Your task to perform on an android device: Do I have any events this weekend? Image 0: 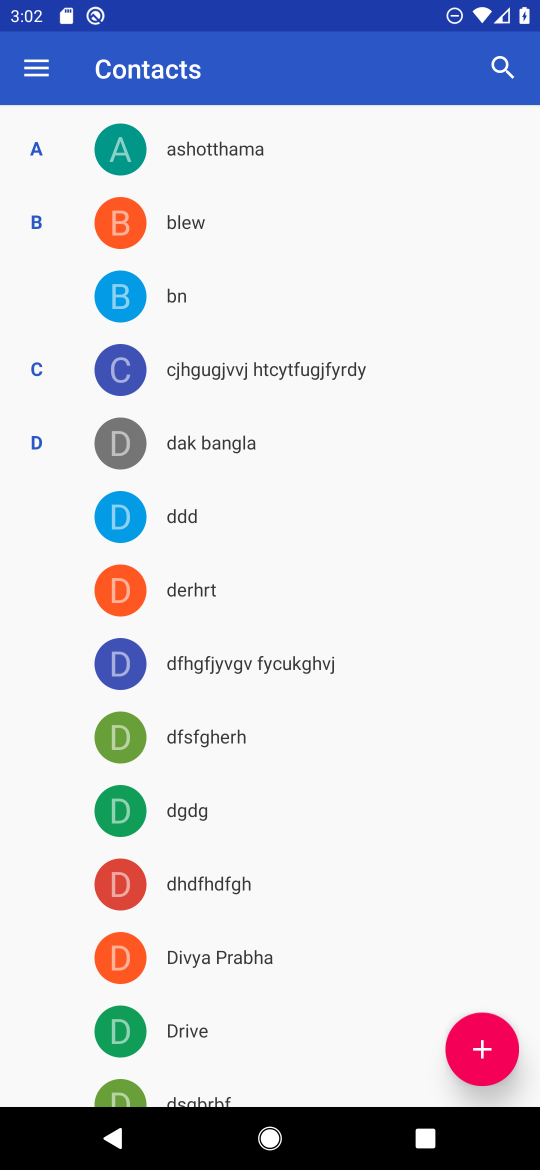
Step 0: press home button
Your task to perform on an android device: Do I have any events this weekend? Image 1: 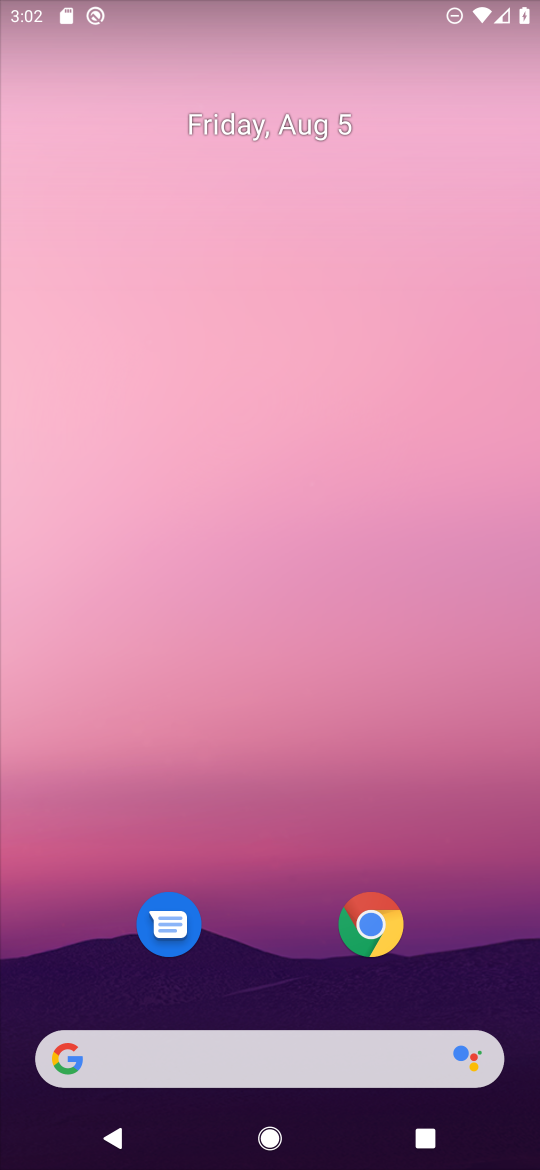
Step 1: drag from (288, 573) to (315, 97)
Your task to perform on an android device: Do I have any events this weekend? Image 2: 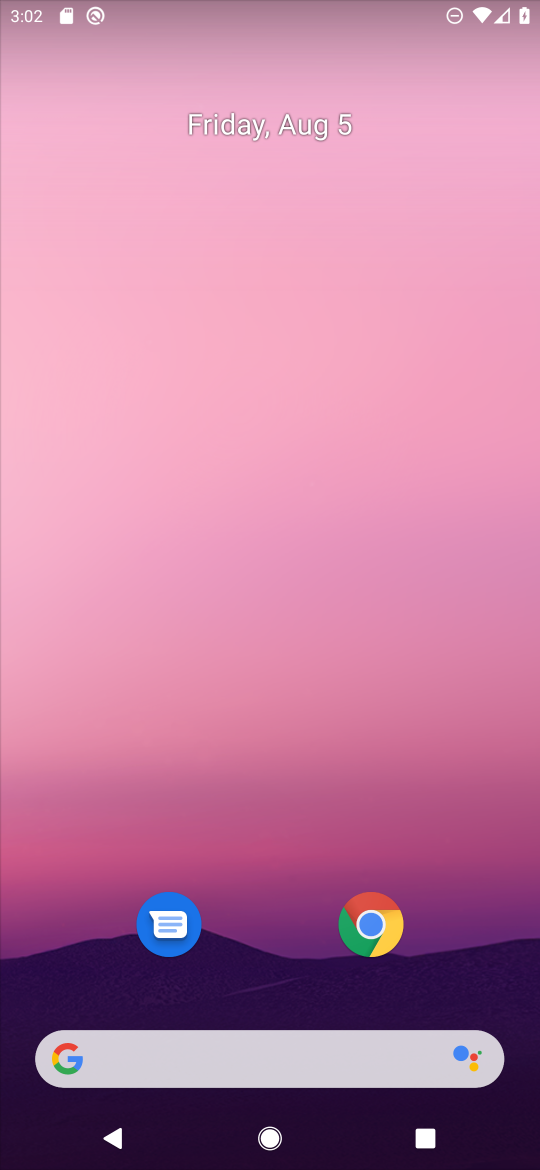
Step 2: drag from (322, 648) to (366, 135)
Your task to perform on an android device: Do I have any events this weekend? Image 3: 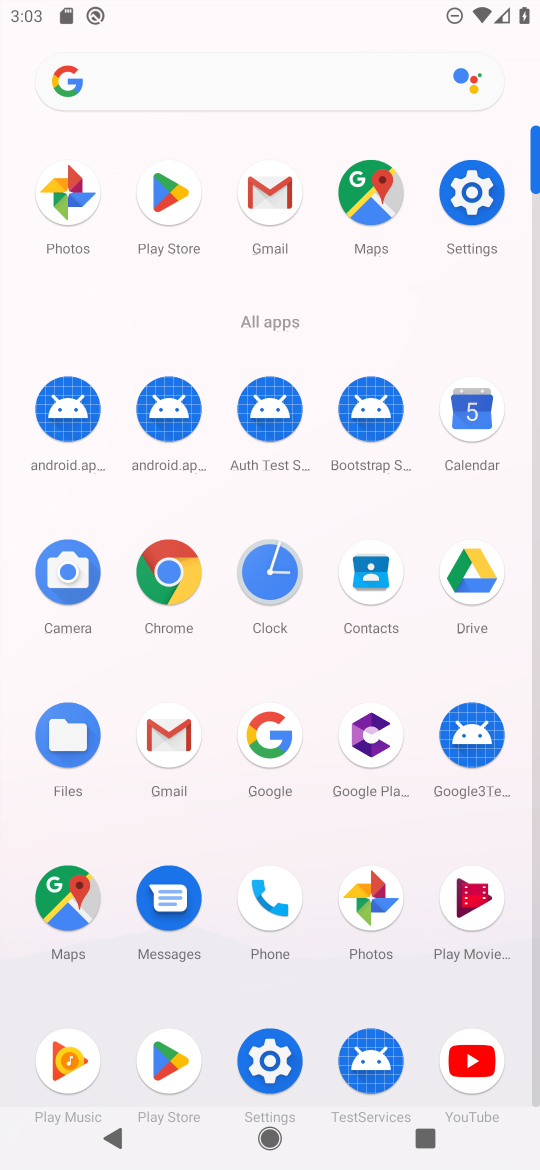
Step 3: click (483, 401)
Your task to perform on an android device: Do I have any events this weekend? Image 4: 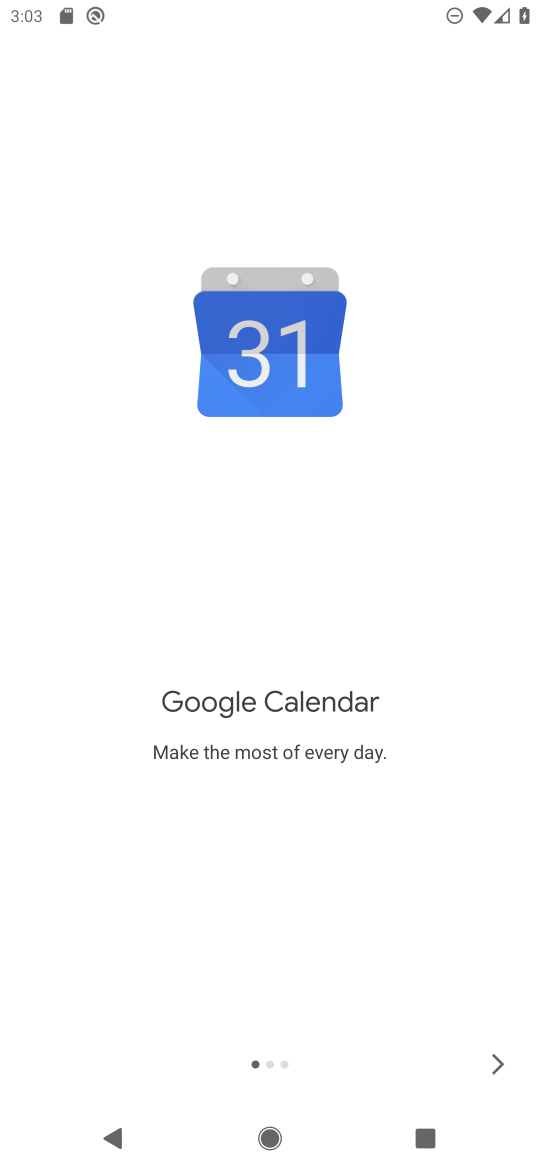
Step 4: click (503, 1061)
Your task to perform on an android device: Do I have any events this weekend? Image 5: 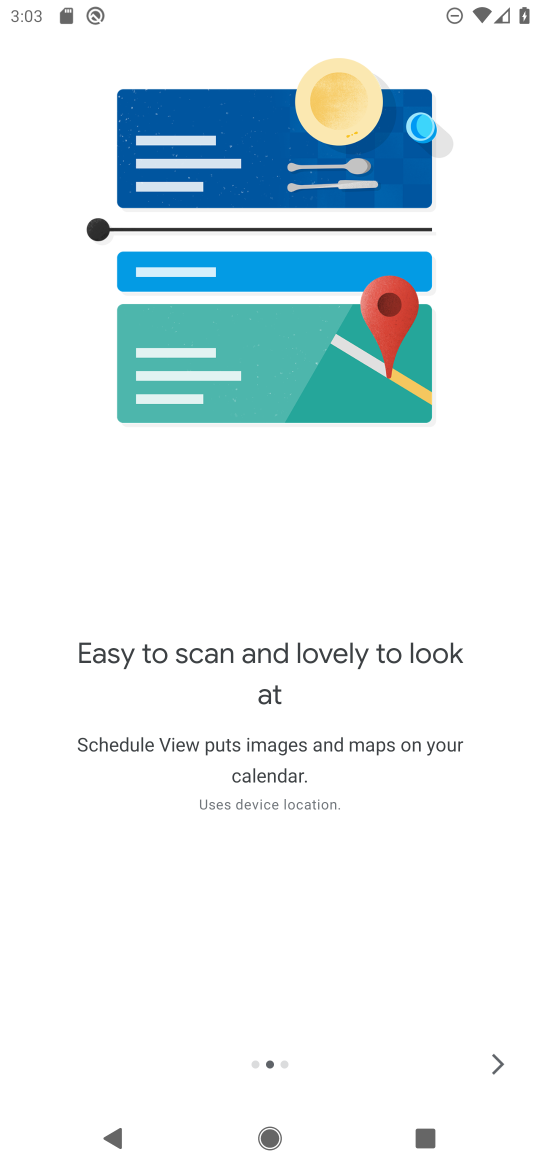
Step 5: click (503, 1061)
Your task to perform on an android device: Do I have any events this weekend? Image 6: 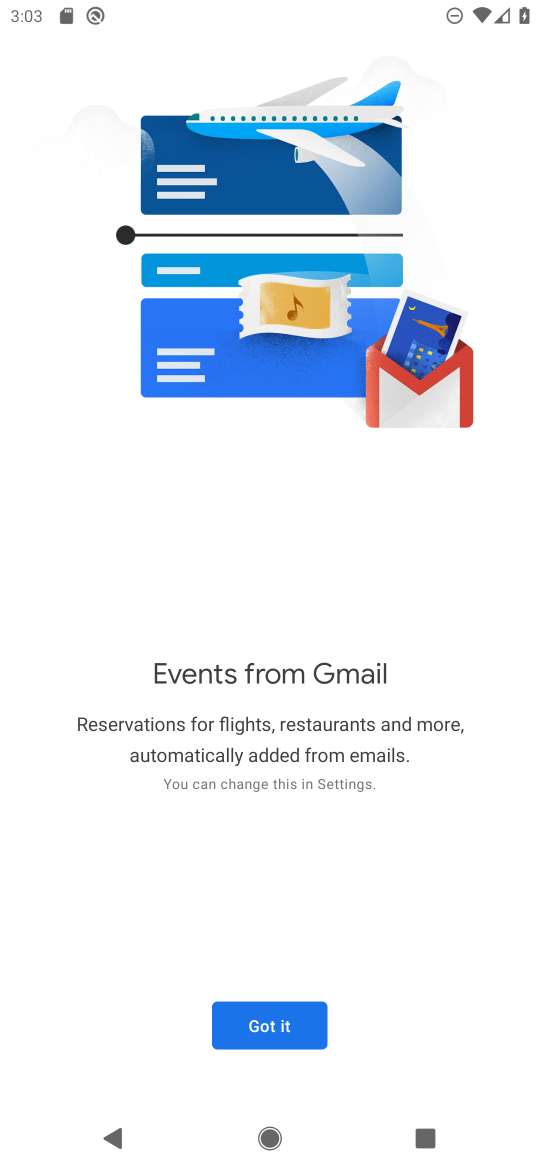
Step 6: click (278, 1018)
Your task to perform on an android device: Do I have any events this weekend? Image 7: 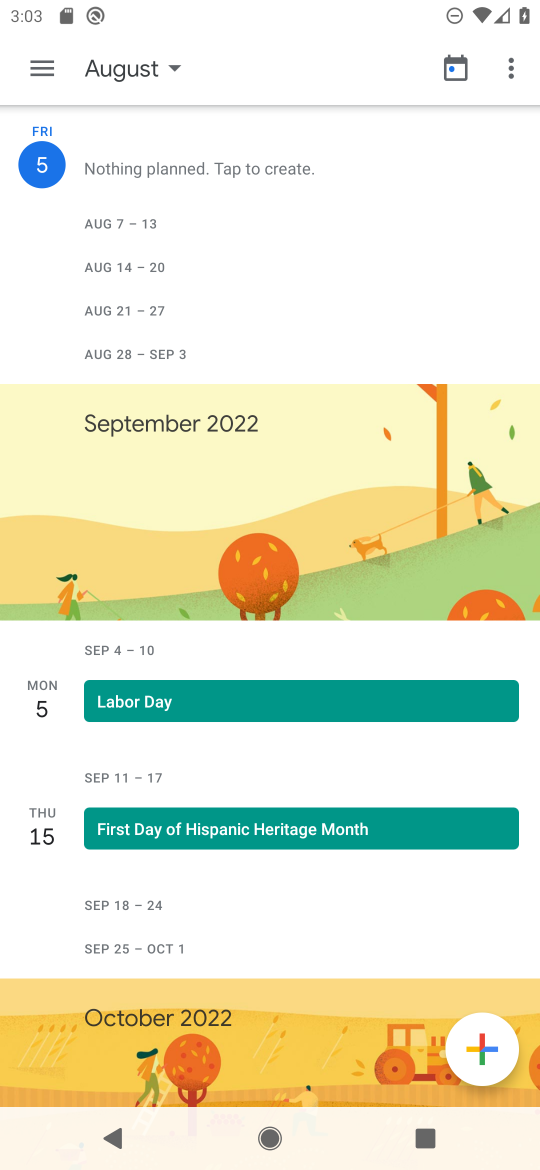
Step 7: click (116, 54)
Your task to perform on an android device: Do I have any events this weekend? Image 8: 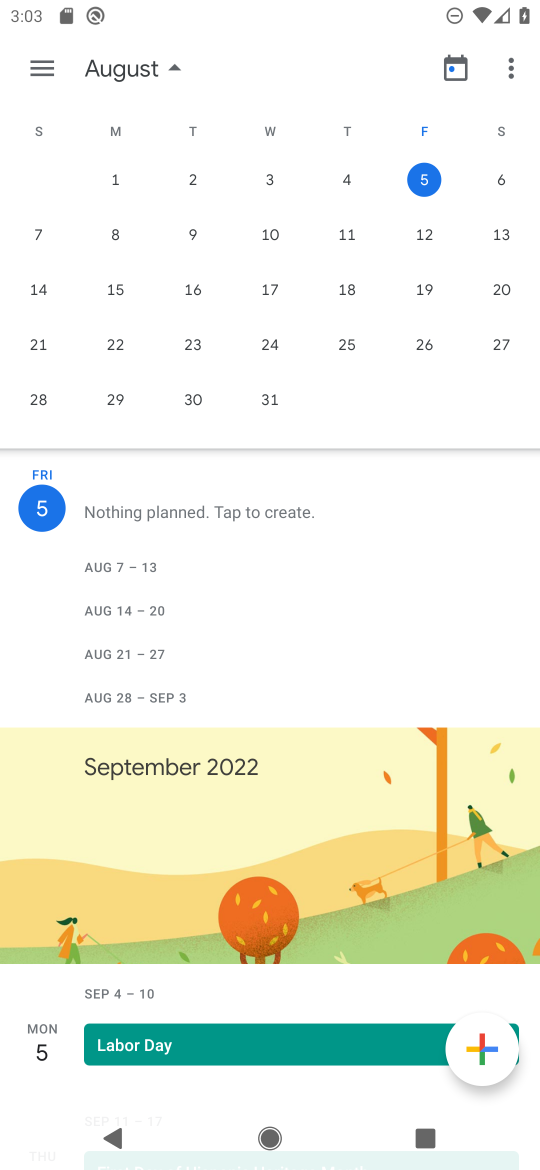
Step 8: click (513, 170)
Your task to perform on an android device: Do I have any events this weekend? Image 9: 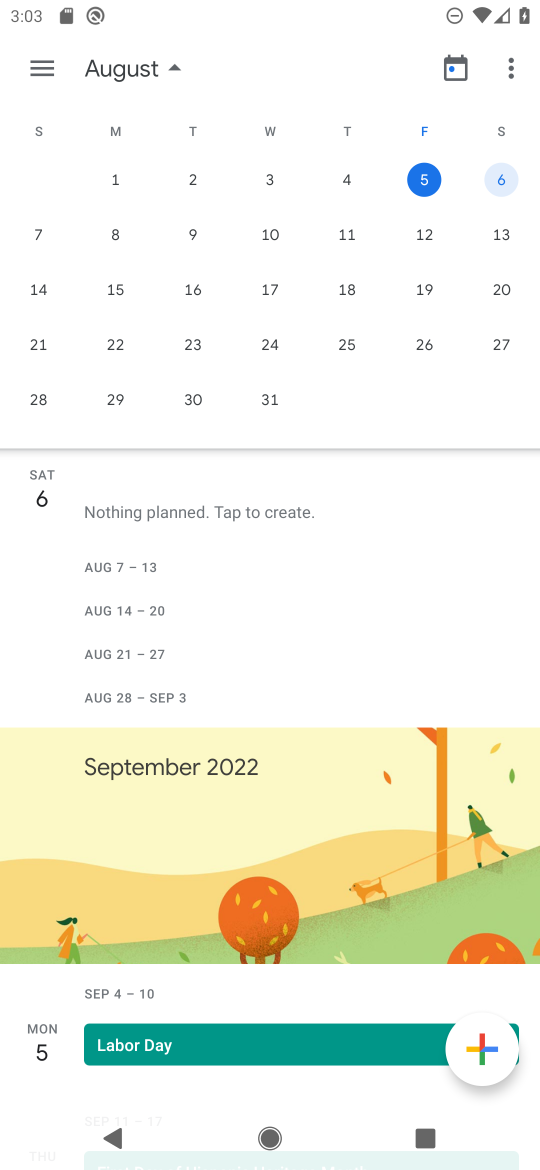
Step 9: click (36, 57)
Your task to perform on an android device: Do I have any events this weekend? Image 10: 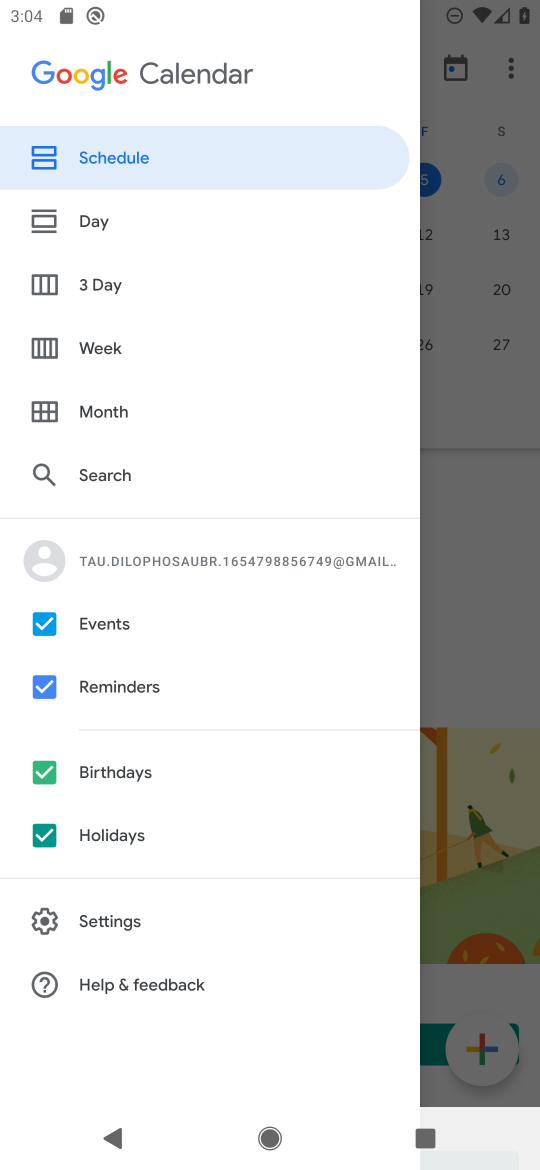
Step 10: click (129, 281)
Your task to perform on an android device: Do I have any events this weekend? Image 11: 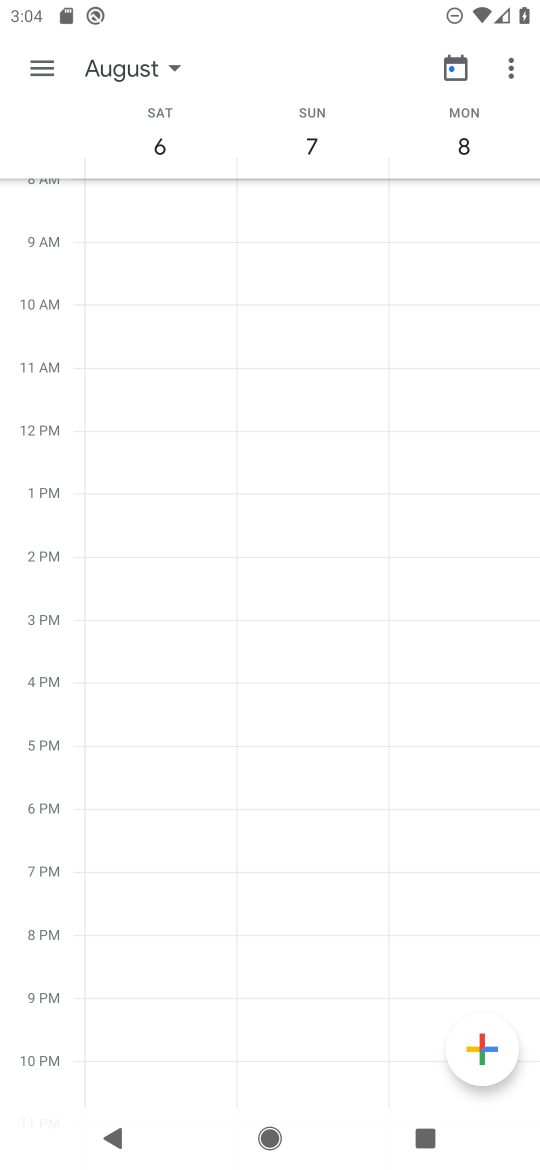
Step 11: task complete